Your task to perform on an android device: Open battery settings Image 0: 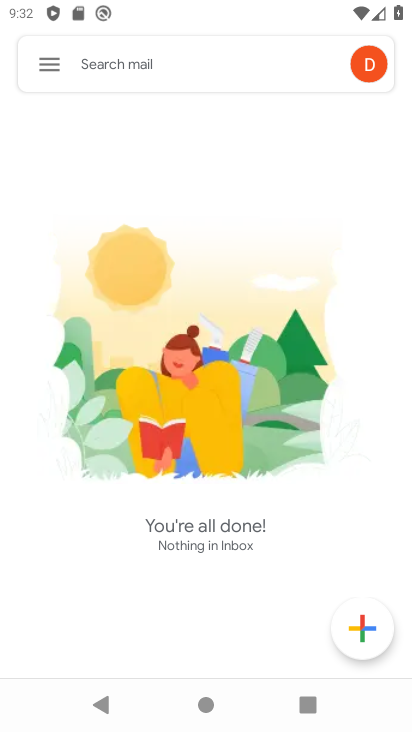
Step 0: press home button
Your task to perform on an android device: Open battery settings Image 1: 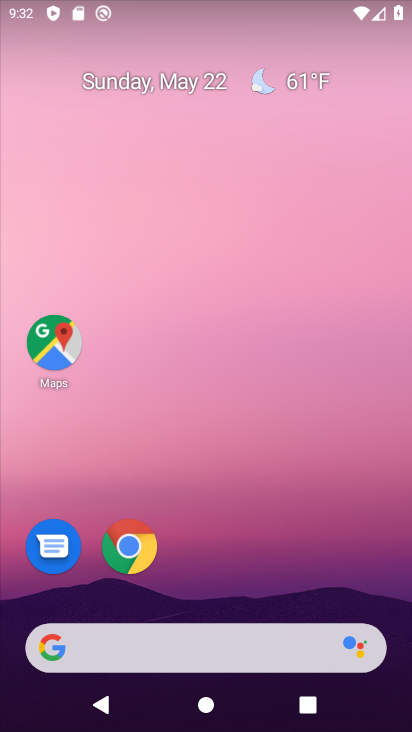
Step 1: drag from (191, 638) to (194, 120)
Your task to perform on an android device: Open battery settings Image 2: 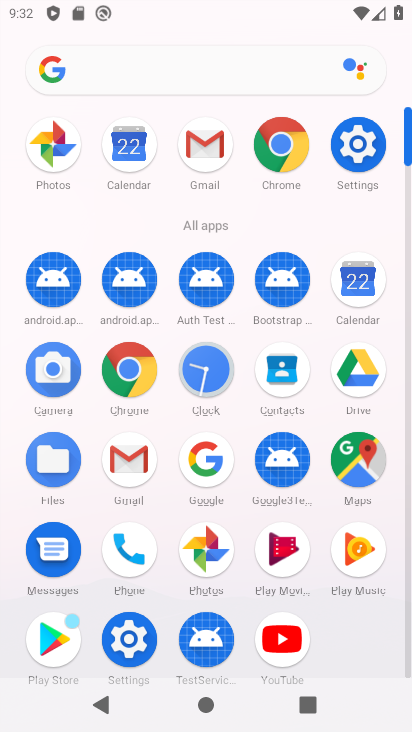
Step 2: click (365, 138)
Your task to perform on an android device: Open battery settings Image 3: 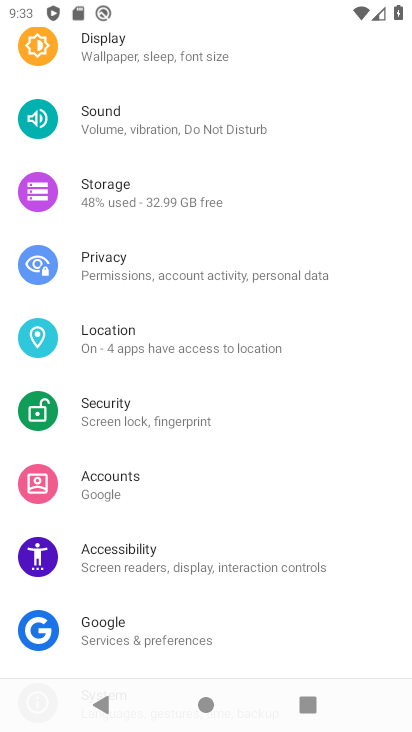
Step 3: drag from (140, 376) to (146, 541)
Your task to perform on an android device: Open battery settings Image 4: 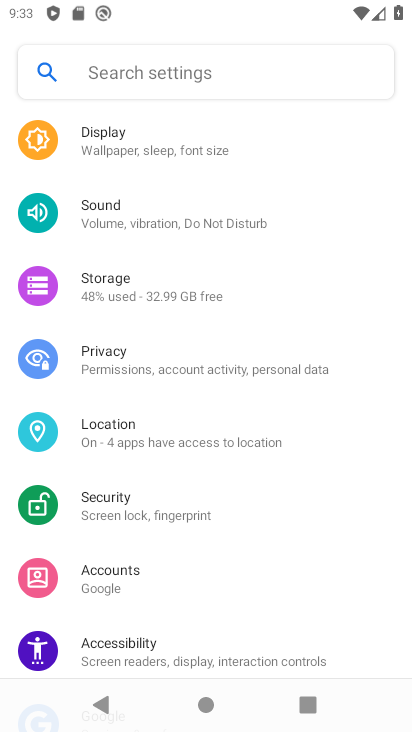
Step 4: drag from (161, 201) to (181, 598)
Your task to perform on an android device: Open battery settings Image 5: 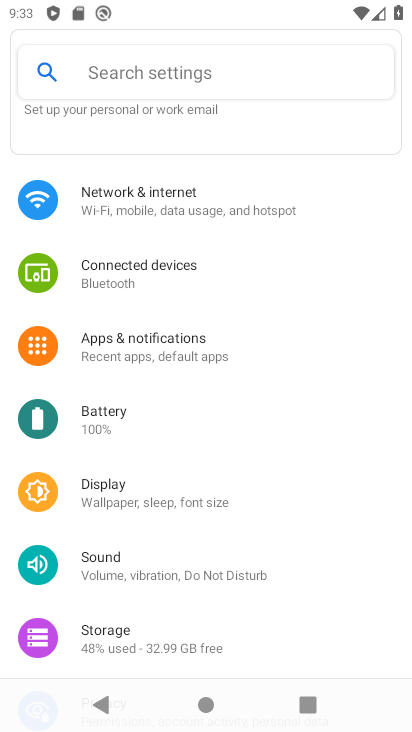
Step 5: click (100, 438)
Your task to perform on an android device: Open battery settings Image 6: 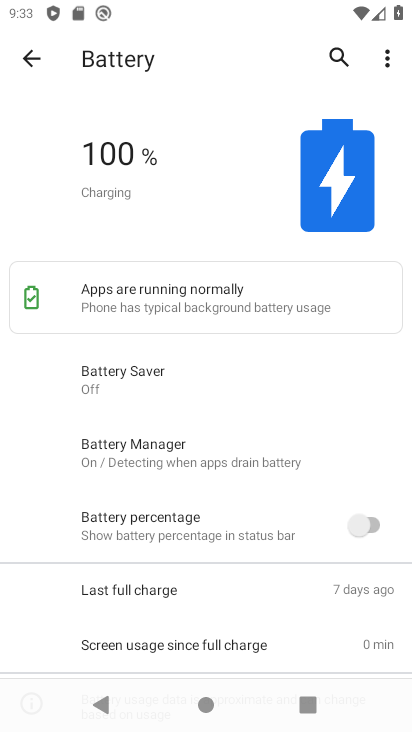
Step 6: task complete